Your task to perform on an android device: Open CNN.com Image 0: 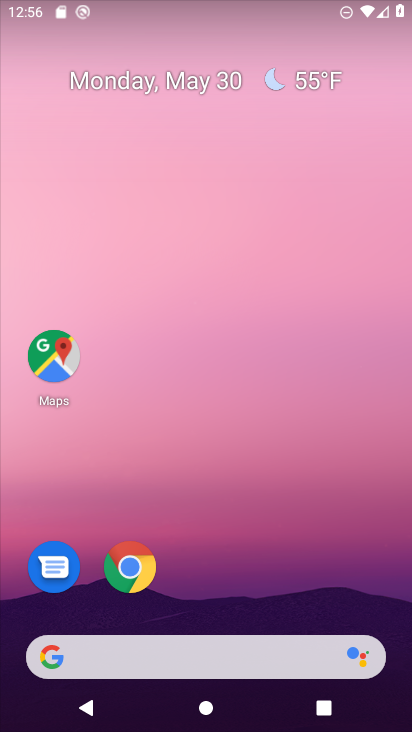
Step 0: press home button
Your task to perform on an android device: Open CNN.com Image 1: 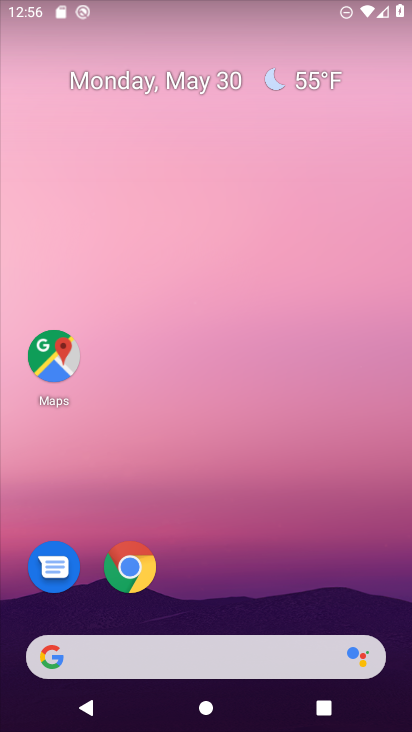
Step 1: click (129, 561)
Your task to perform on an android device: Open CNN.com Image 2: 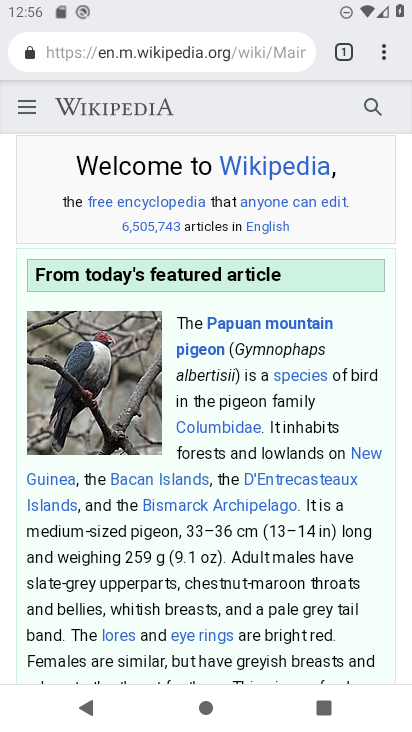
Step 2: click (341, 51)
Your task to perform on an android device: Open CNN.com Image 3: 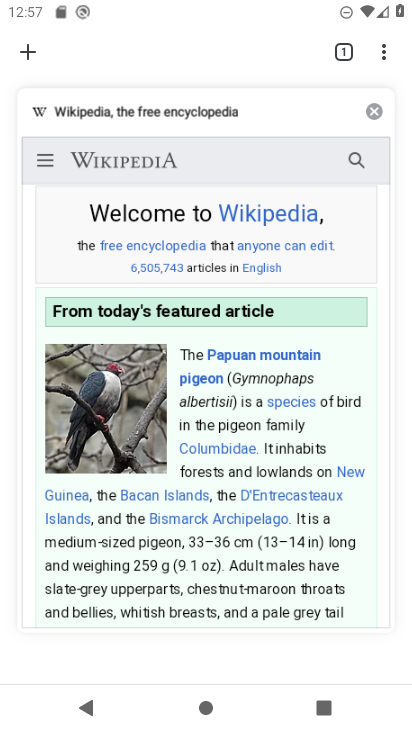
Step 3: click (370, 106)
Your task to perform on an android device: Open CNN.com Image 4: 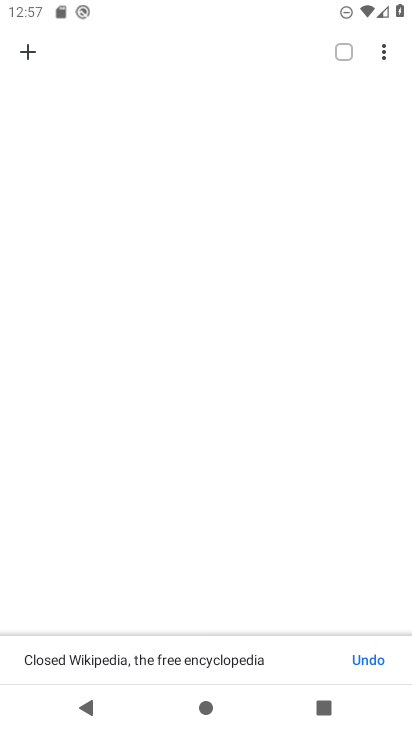
Step 4: click (31, 53)
Your task to perform on an android device: Open CNN.com Image 5: 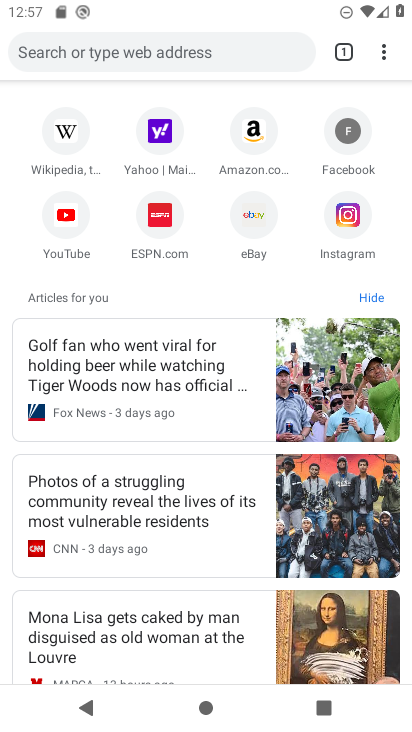
Step 5: click (115, 47)
Your task to perform on an android device: Open CNN.com Image 6: 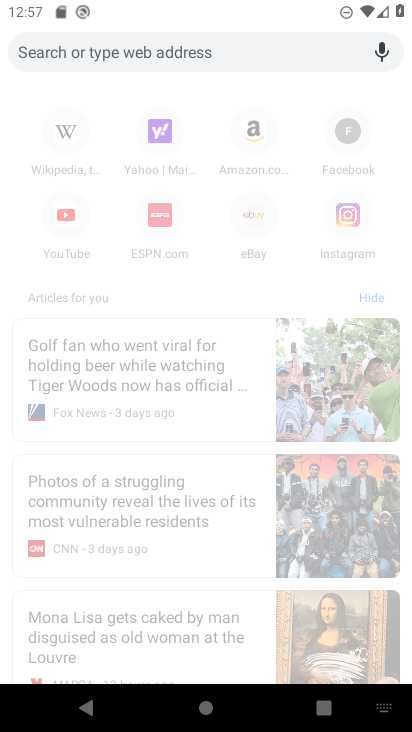
Step 6: type "cnn.com"
Your task to perform on an android device: Open CNN.com Image 7: 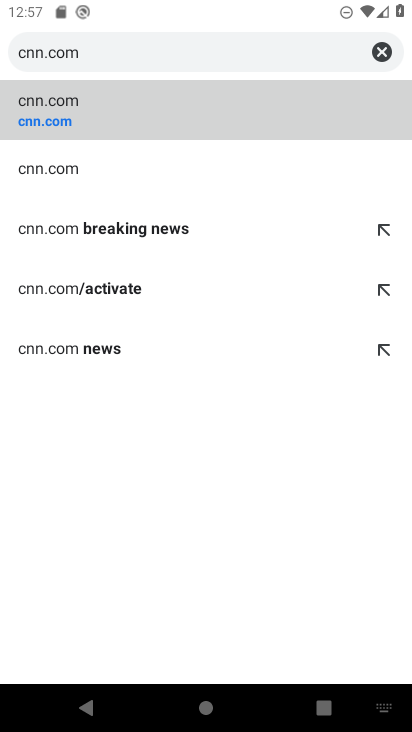
Step 7: click (88, 115)
Your task to perform on an android device: Open CNN.com Image 8: 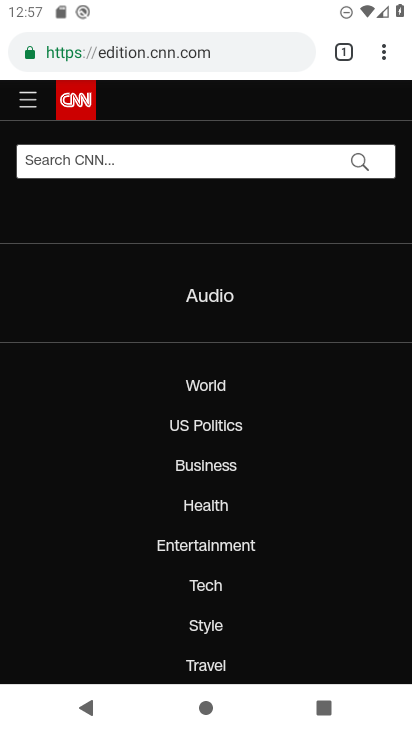
Step 8: task complete